Your task to perform on an android device: Open the Play Movies app and select the watchlist tab. Image 0: 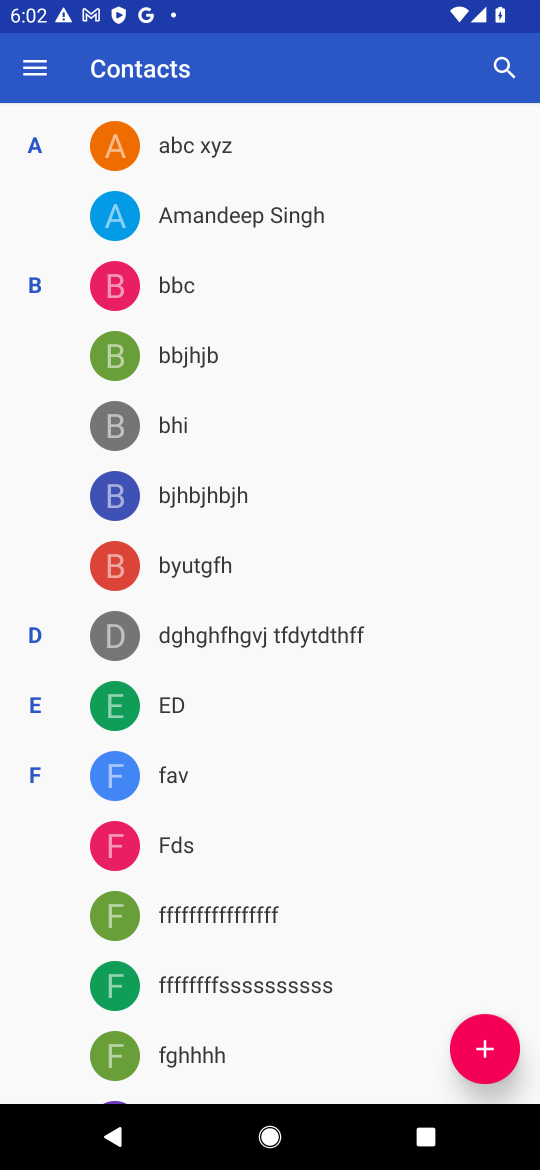
Step 0: press home button
Your task to perform on an android device: Open the Play Movies app and select the watchlist tab. Image 1: 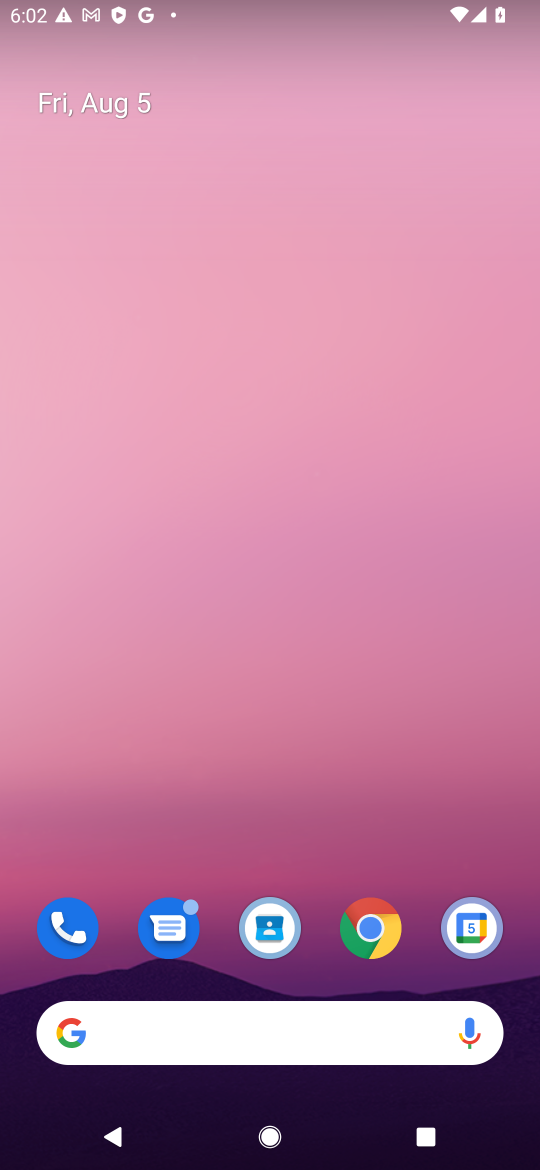
Step 1: task complete